Your task to perform on an android device: delete a single message in the gmail app Image 0: 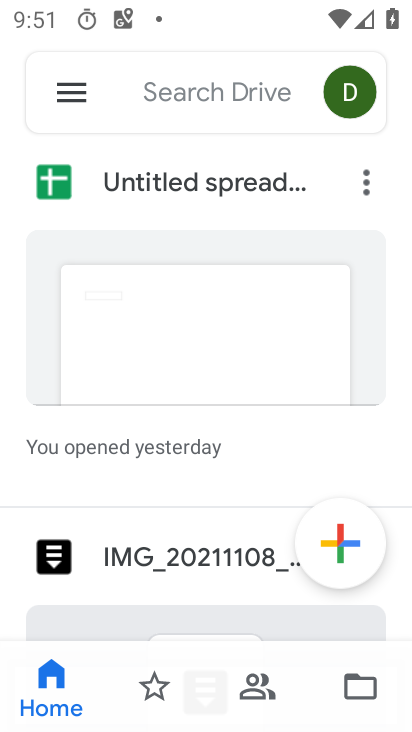
Step 0: press home button
Your task to perform on an android device: delete a single message in the gmail app Image 1: 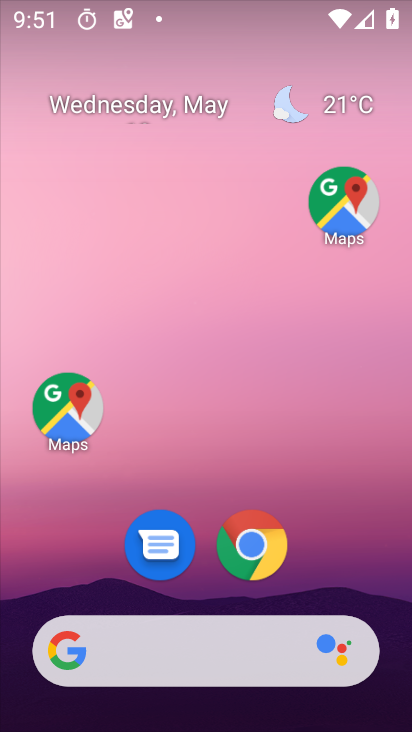
Step 1: drag from (316, 594) to (268, 76)
Your task to perform on an android device: delete a single message in the gmail app Image 2: 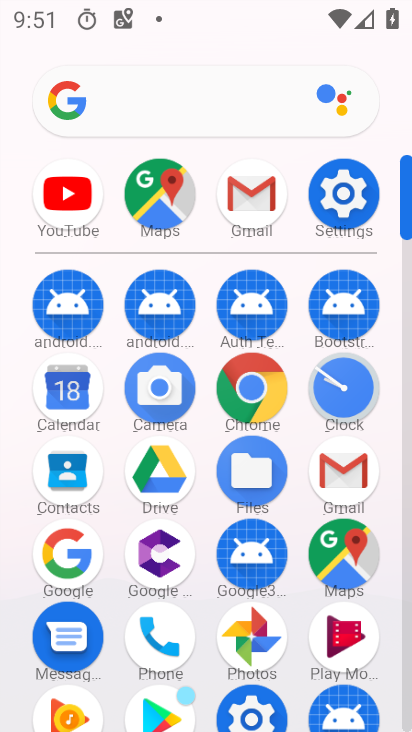
Step 2: click (361, 468)
Your task to perform on an android device: delete a single message in the gmail app Image 3: 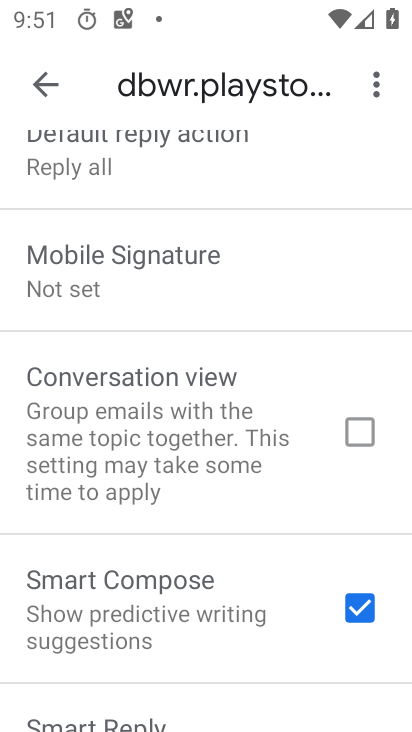
Step 3: drag from (162, 306) to (137, 601)
Your task to perform on an android device: delete a single message in the gmail app Image 4: 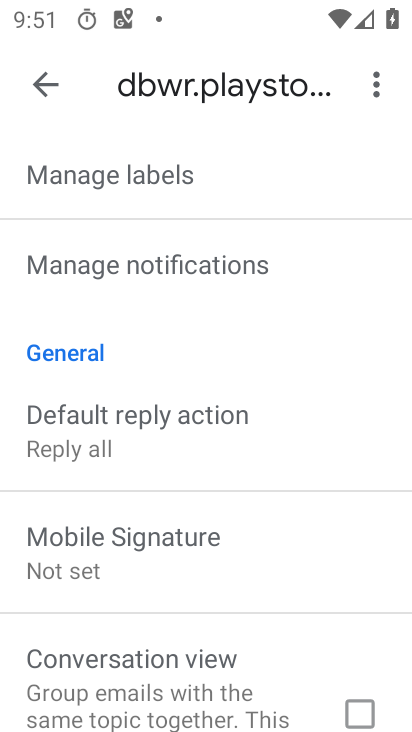
Step 4: click (37, 96)
Your task to perform on an android device: delete a single message in the gmail app Image 5: 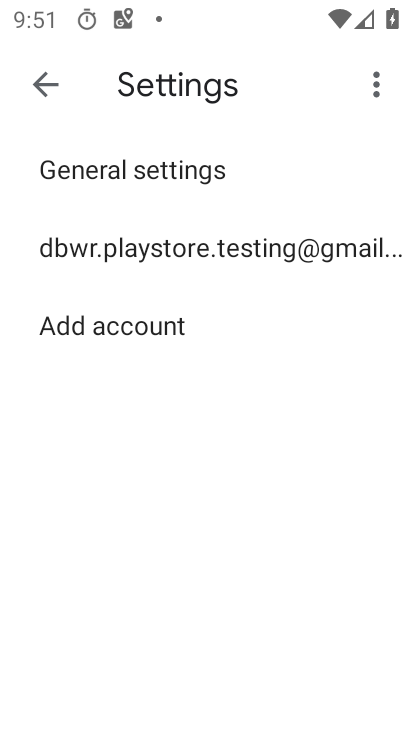
Step 5: click (37, 96)
Your task to perform on an android device: delete a single message in the gmail app Image 6: 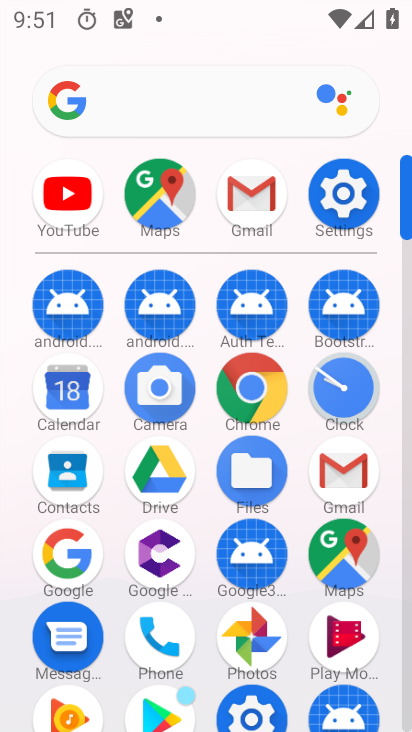
Step 6: click (339, 471)
Your task to perform on an android device: delete a single message in the gmail app Image 7: 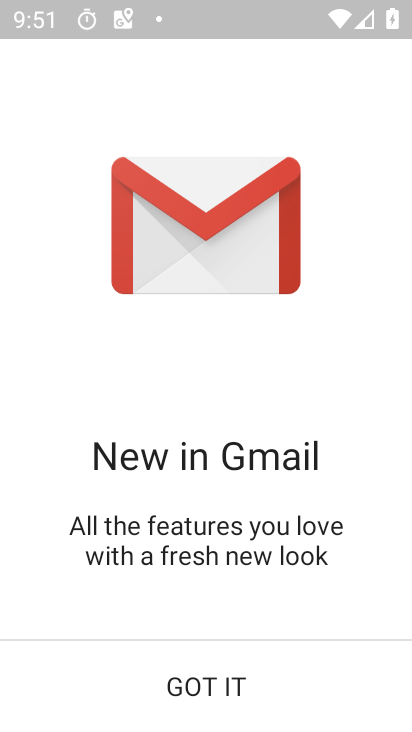
Step 7: click (256, 669)
Your task to perform on an android device: delete a single message in the gmail app Image 8: 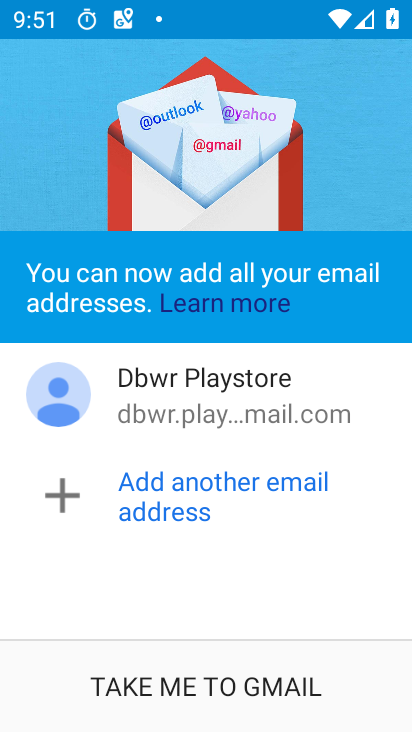
Step 8: click (223, 666)
Your task to perform on an android device: delete a single message in the gmail app Image 9: 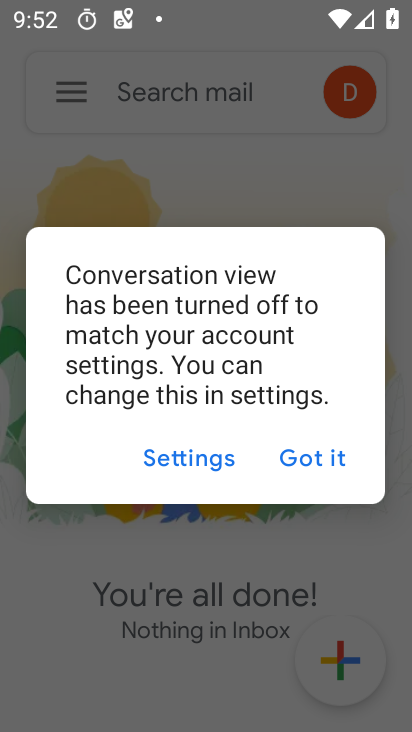
Step 9: click (336, 461)
Your task to perform on an android device: delete a single message in the gmail app Image 10: 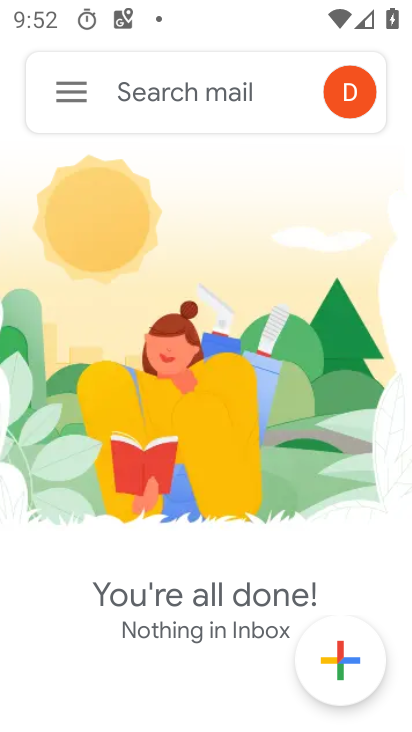
Step 10: click (45, 101)
Your task to perform on an android device: delete a single message in the gmail app Image 11: 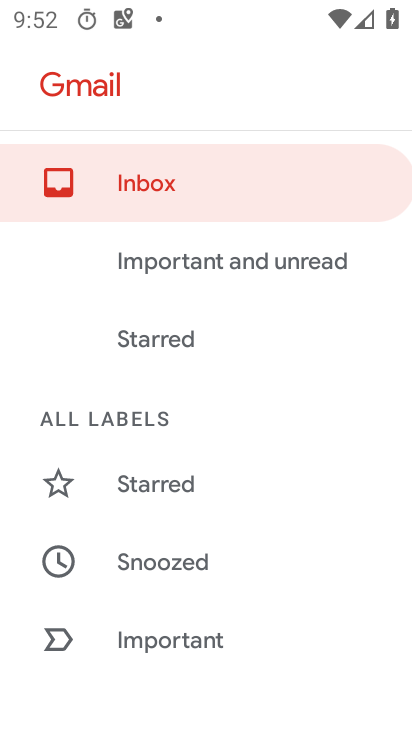
Step 11: drag from (186, 567) to (155, 277)
Your task to perform on an android device: delete a single message in the gmail app Image 12: 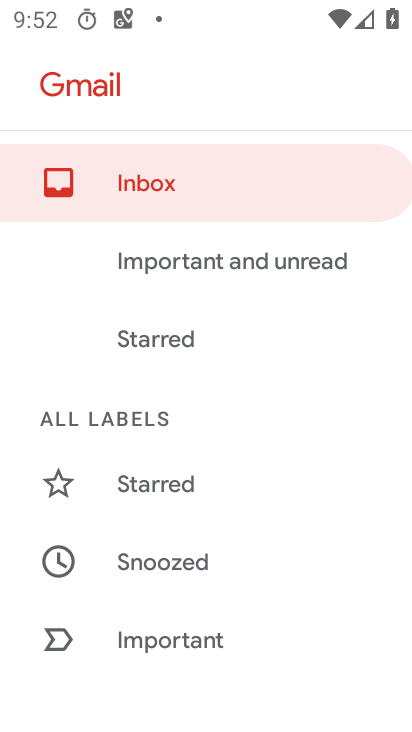
Step 12: drag from (165, 675) to (169, 449)
Your task to perform on an android device: delete a single message in the gmail app Image 13: 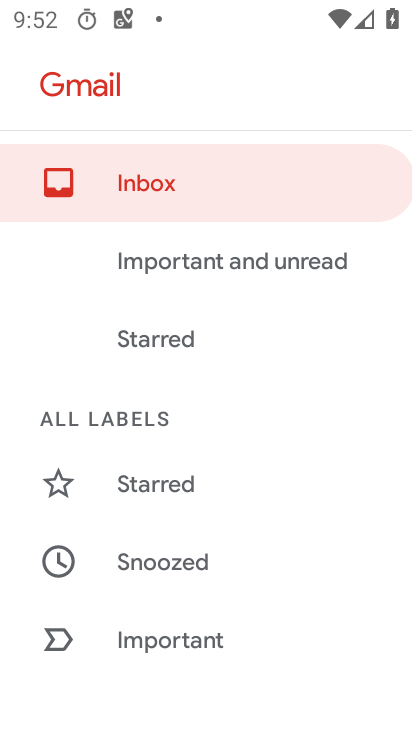
Step 13: drag from (198, 654) to (196, 479)
Your task to perform on an android device: delete a single message in the gmail app Image 14: 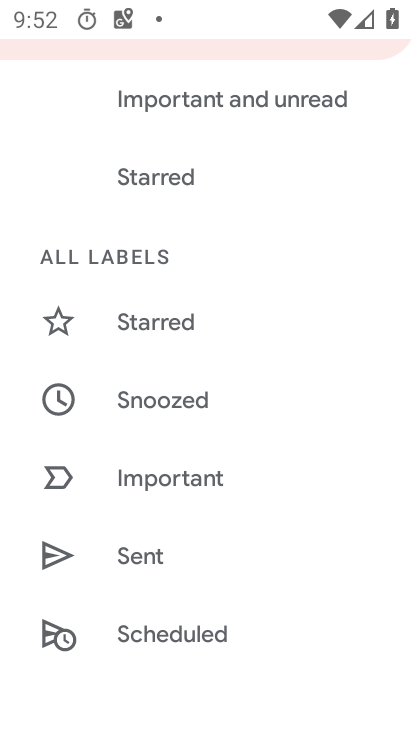
Step 14: drag from (251, 680) to (251, 305)
Your task to perform on an android device: delete a single message in the gmail app Image 15: 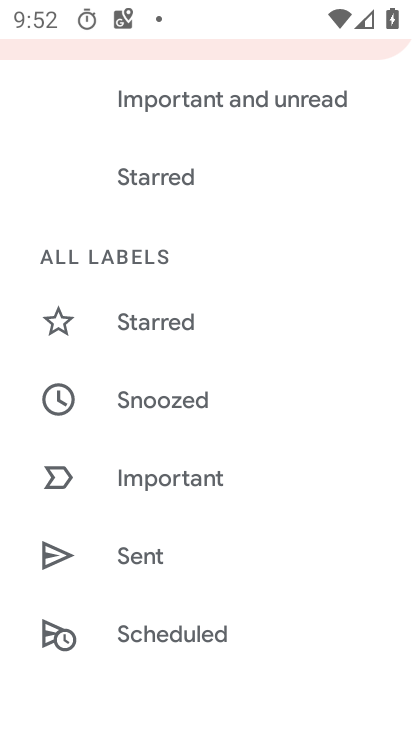
Step 15: drag from (203, 564) to (246, 201)
Your task to perform on an android device: delete a single message in the gmail app Image 16: 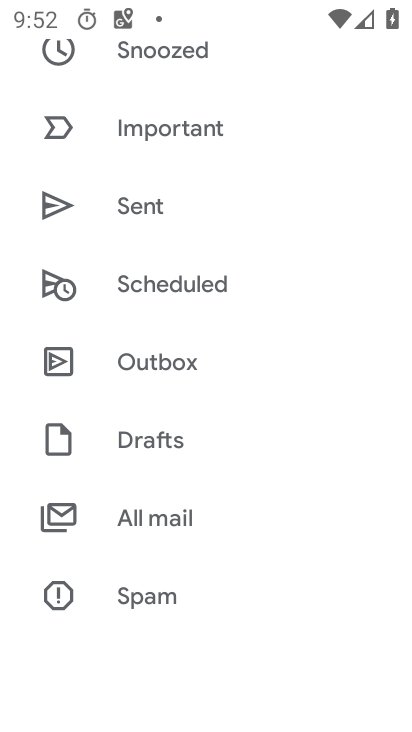
Step 16: click (248, 508)
Your task to perform on an android device: delete a single message in the gmail app Image 17: 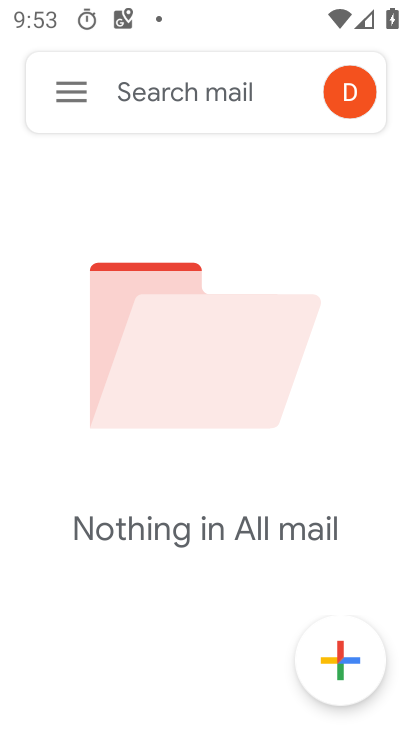
Step 17: task complete